Your task to perform on an android device: Show me the alarms in the clock app Image 0: 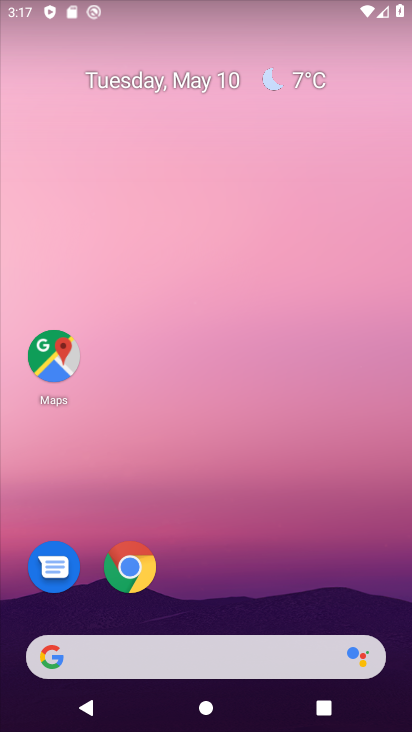
Step 0: drag from (208, 525) to (253, 37)
Your task to perform on an android device: Show me the alarms in the clock app Image 1: 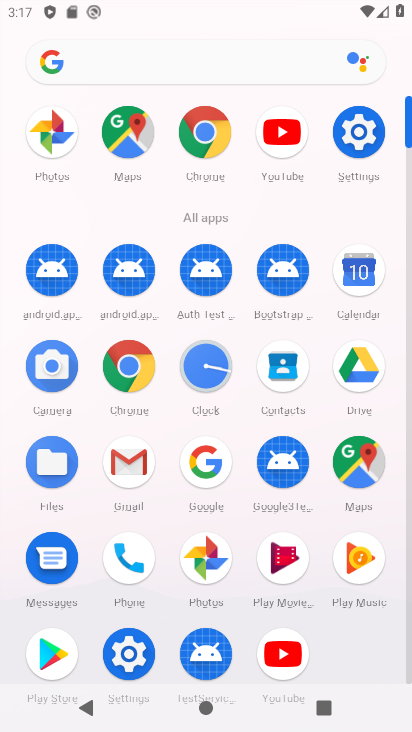
Step 1: click (208, 364)
Your task to perform on an android device: Show me the alarms in the clock app Image 2: 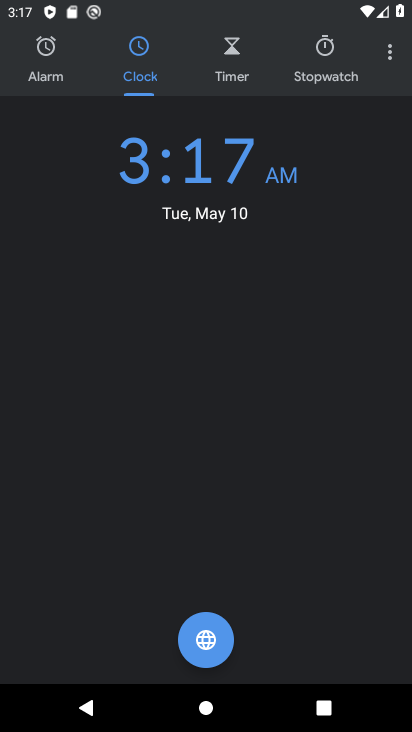
Step 2: click (49, 53)
Your task to perform on an android device: Show me the alarms in the clock app Image 3: 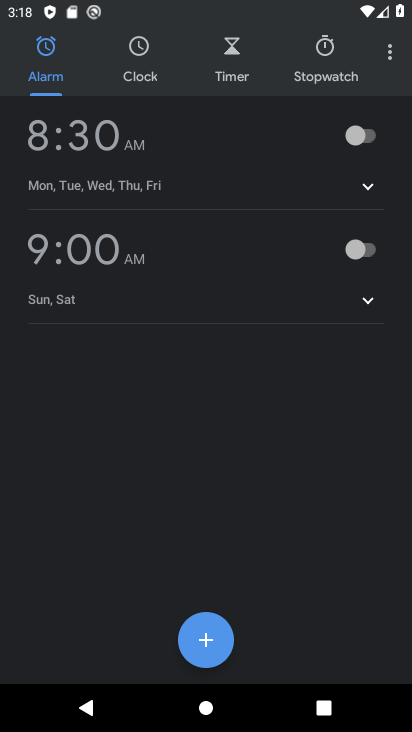
Step 3: task complete